Your task to perform on an android device: toggle notification dots Image 0: 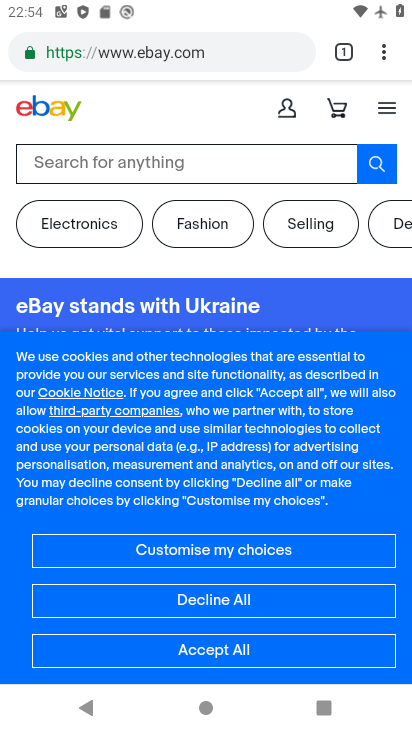
Step 0: press home button
Your task to perform on an android device: toggle notification dots Image 1: 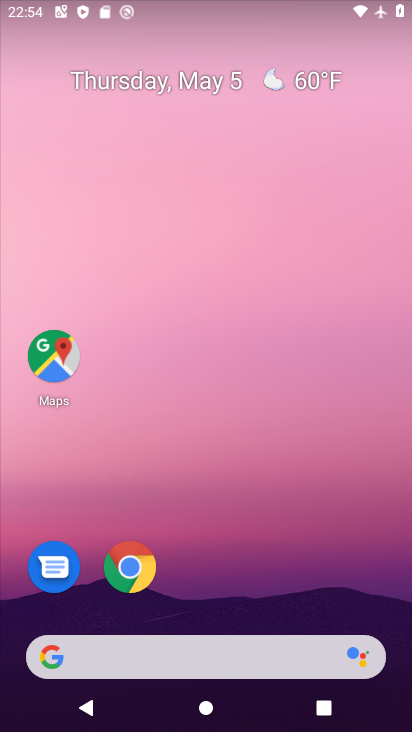
Step 1: drag from (193, 598) to (198, 102)
Your task to perform on an android device: toggle notification dots Image 2: 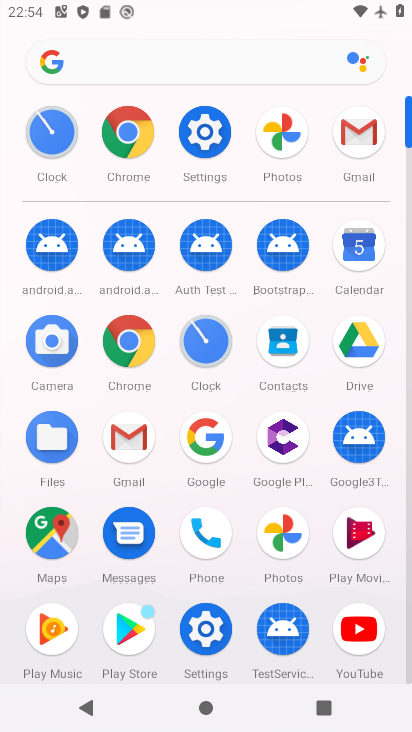
Step 2: click (185, 119)
Your task to perform on an android device: toggle notification dots Image 3: 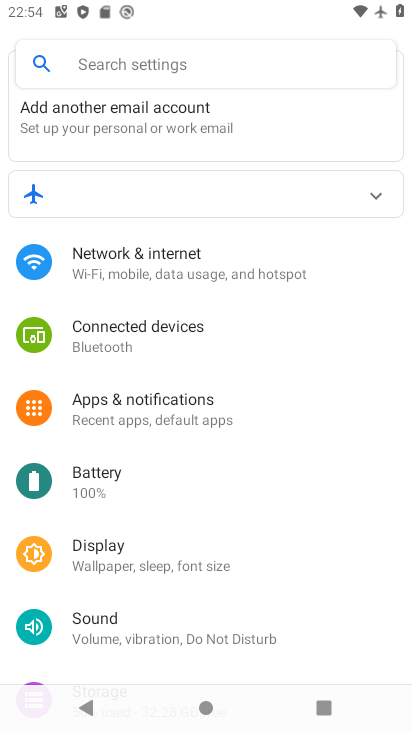
Step 3: click (182, 402)
Your task to perform on an android device: toggle notification dots Image 4: 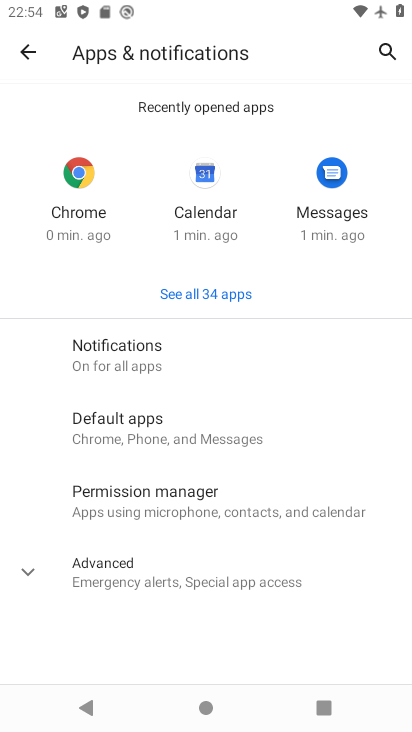
Step 4: click (152, 372)
Your task to perform on an android device: toggle notification dots Image 5: 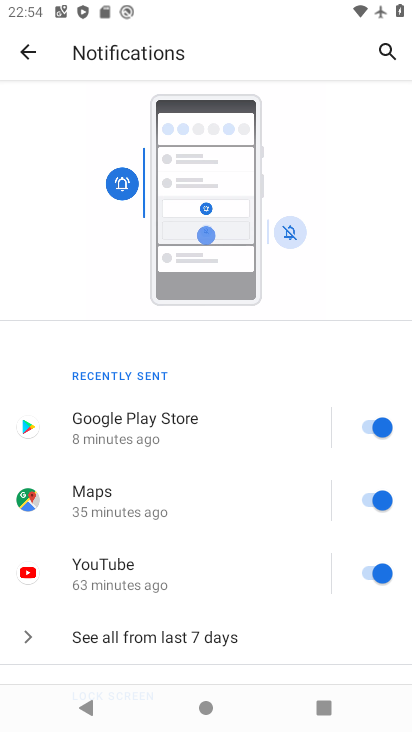
Step 5: drag from (153, 614) to (204, 281)
Your task to perform on an android device: toggle notification dots Image 6: 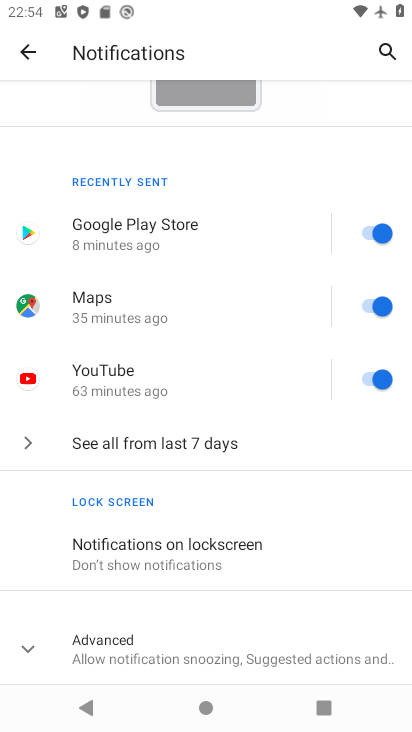
Step 6: click (142, 636)
Your task to perform on an android device: toggle notification dots Image 7: 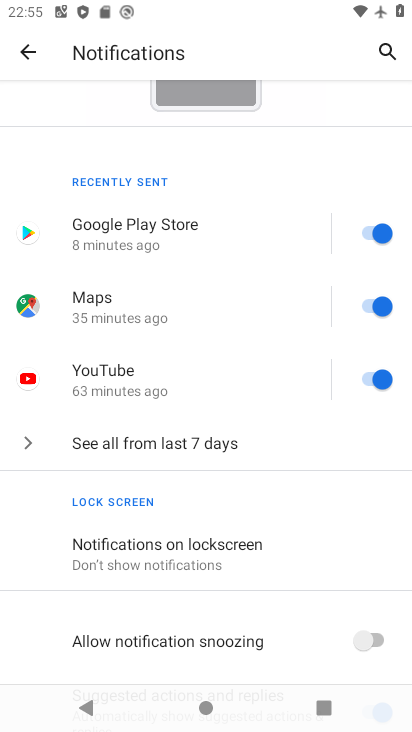
Step 7: task complete